Your task to perform on an android device: Open Youtube and go to the subscriptions tab Image 0: 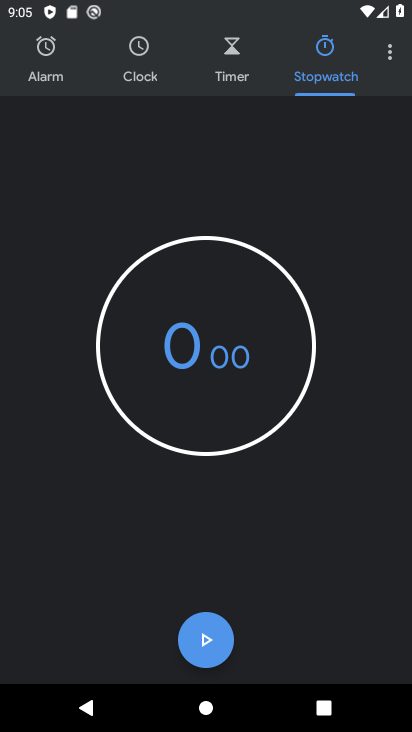
Step 0: press home button
Your task to perform on an android device: Open Youtube and go to the subscriptions tab Image 1: 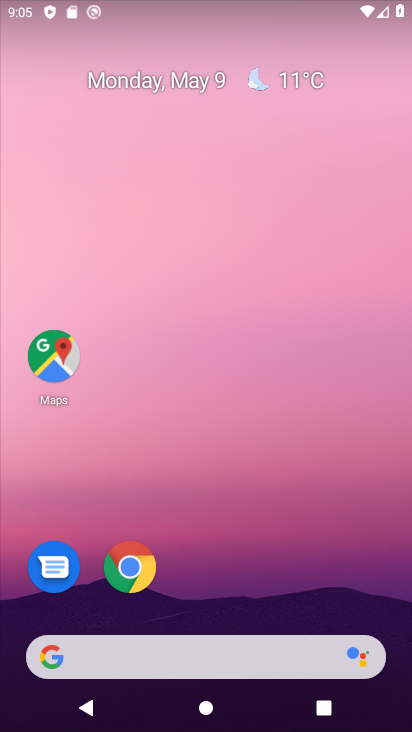
Step 1: drag from (219, 521) to (204, 14)
Your task to perform on an android device: Open Youtube and go to the subscriptions tab Image 2: 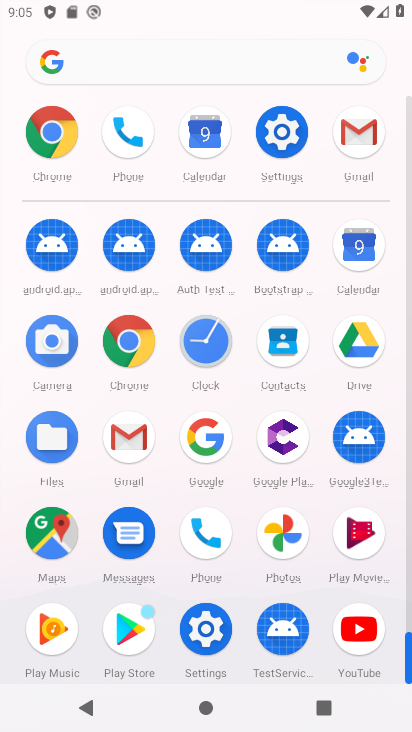
Step 2: click (356, 627)
Your task to perform on an android device: Open Youtube and go to the subscriptions tab Image 3: 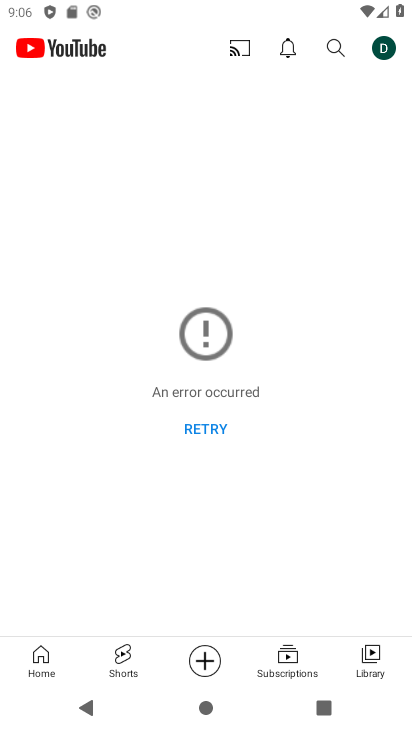
Step 3: click (203, 424)
Your task to perform on an android device: Open Youtube and go to the subscriptions tab Image 4: 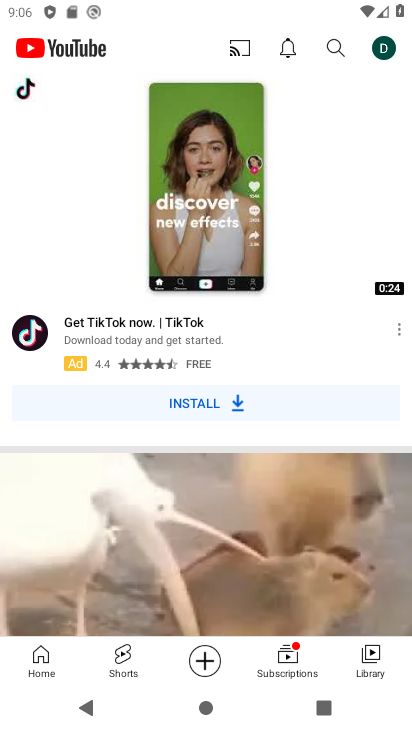
Step 4: click (299, 659)
Your task to perform on an android device: Open Youtube and go to the subscriptions tab Image 5: 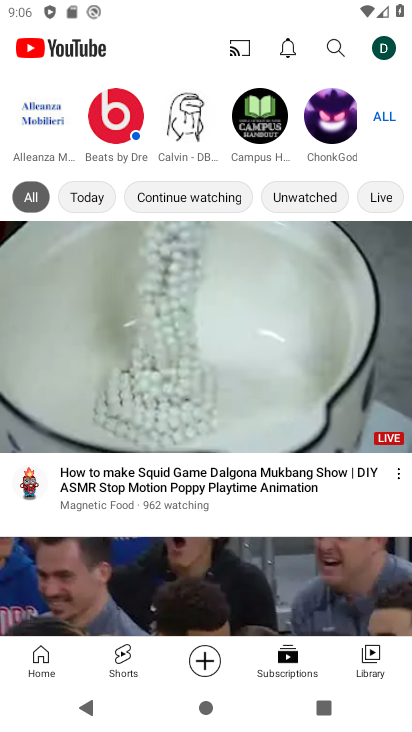
Step 5: task complete